Your task to perform on an android device: What is the recent news? Image 0: 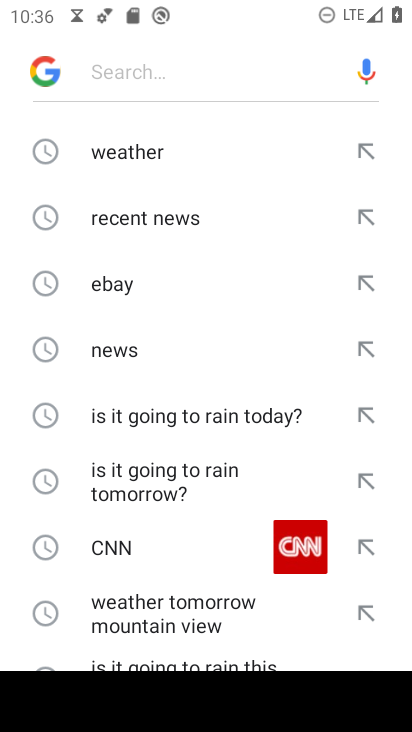
Step 0: press home button
Your task to perform on an android device: What is the recent news? Image 1: 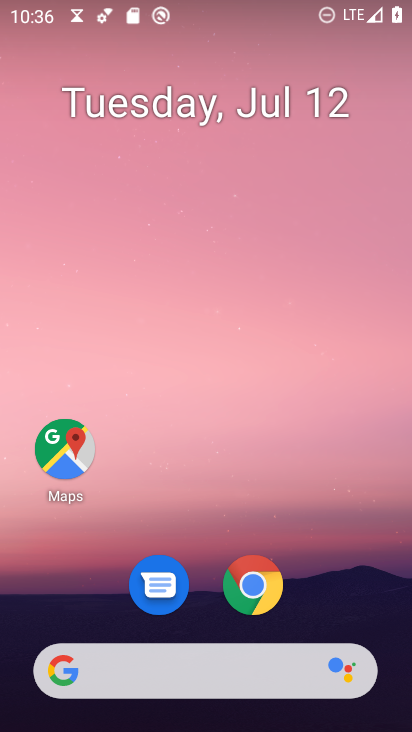
Step 1: click (150, 677)
Your task to perform on an android device: What is the recent news? Image 2: 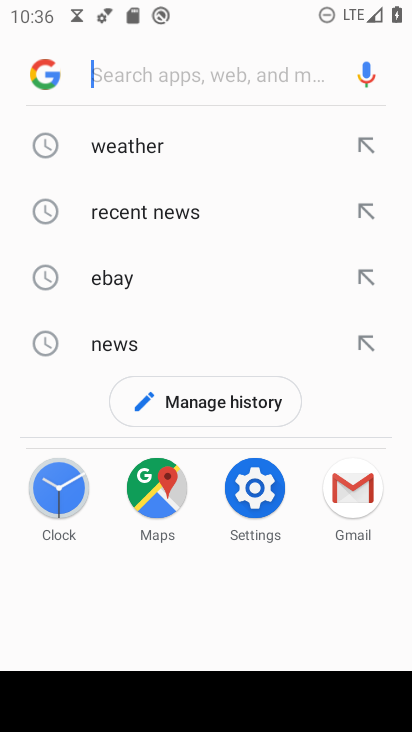
Step 2: click (179, 200)
Your task to perform on an android device: What is the recent news? Image 3: 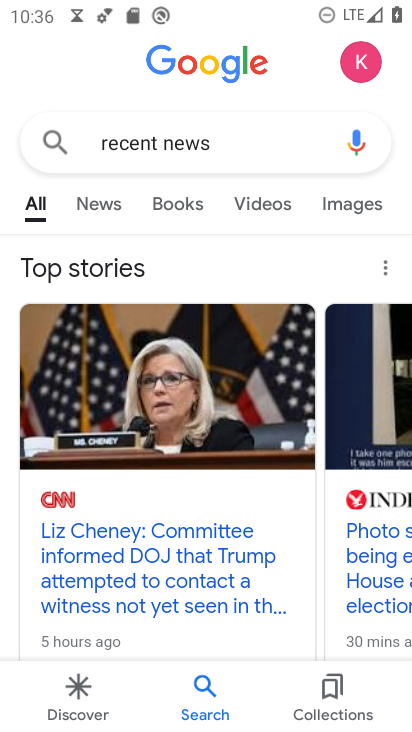
Step 3: click (101, 198)
Your task to perform on an android device: What is the recent news? Image 4: 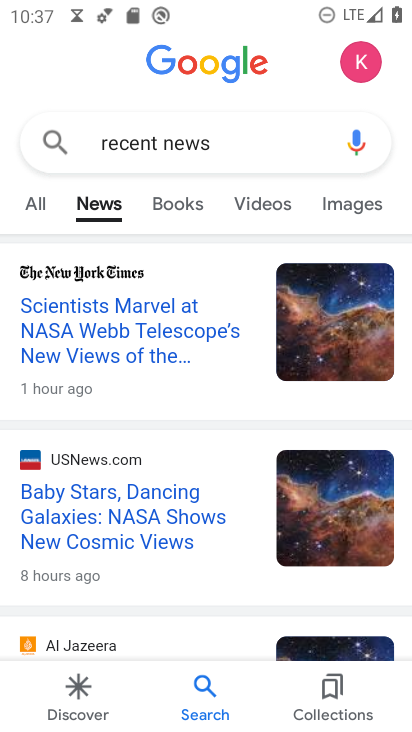
Step 4: task complete